Your task to perform on an android device: Go to network settings Image 0: 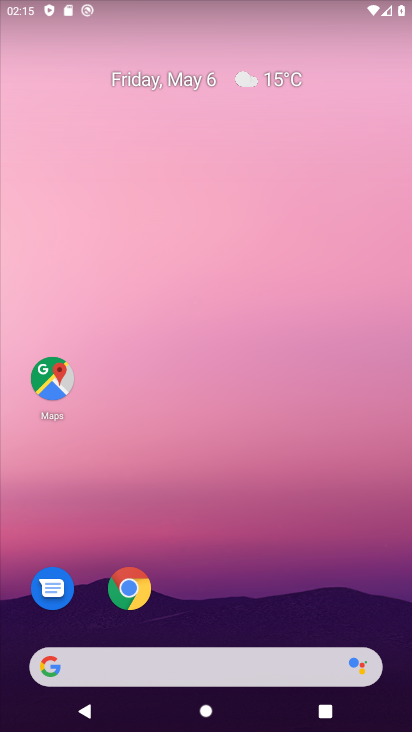
Step 0: drag from (244, 626) to (137, 108)
Your task to perform on an android device: Go to network settings Image 1: 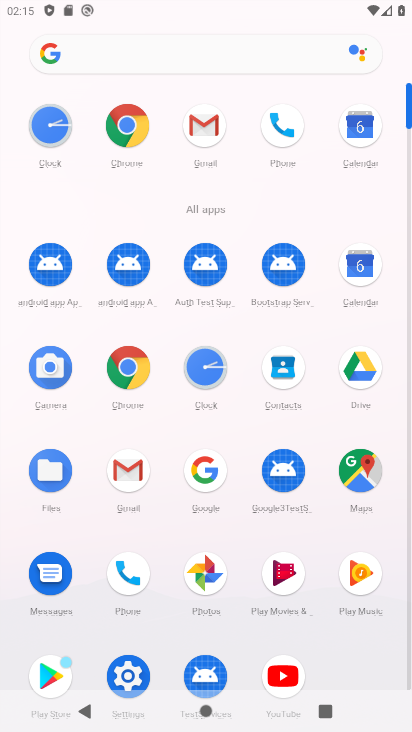
Step 1: click (126, 660)
Your task to perform on an android device: Go to network settings Image 2: 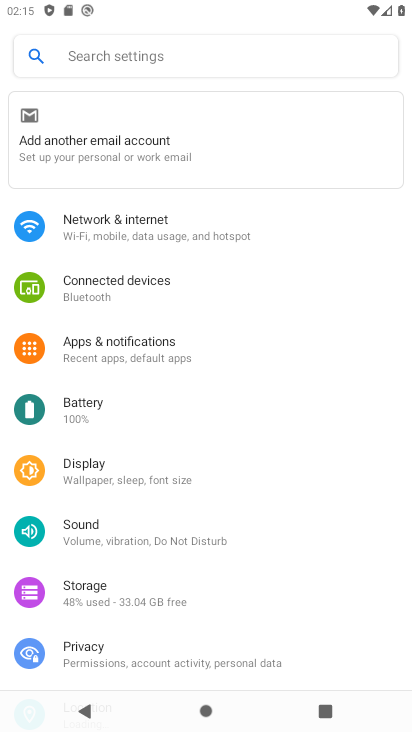
Step 2: click (132, 233)
Your task to perform on an android device: Go to network settings Image 3: 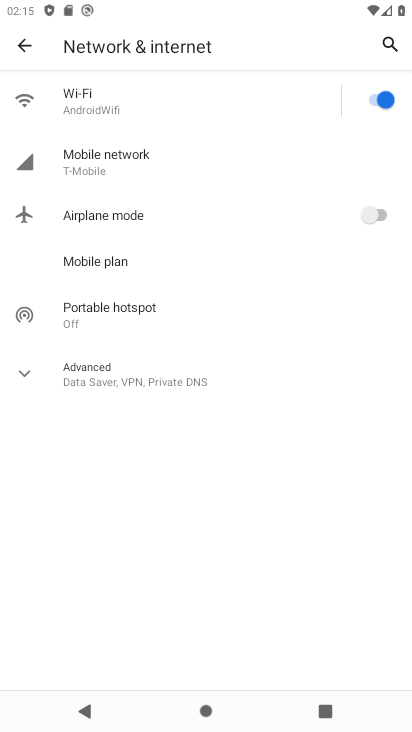
Step 3: click (118, 164)
Your task to perform on an android device: Go to network settings Image 4: 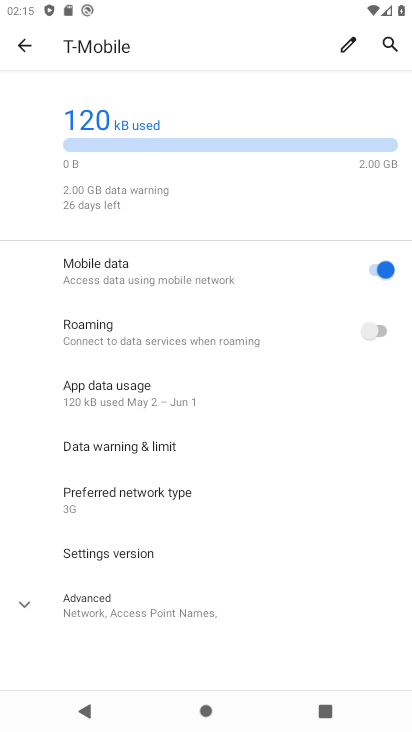
Step 4: task complete